Your task to perform on an android device: Clear the cart on target.com. Add usb-a to usb-b to the cart on target.com, then select checkout. Image 0: 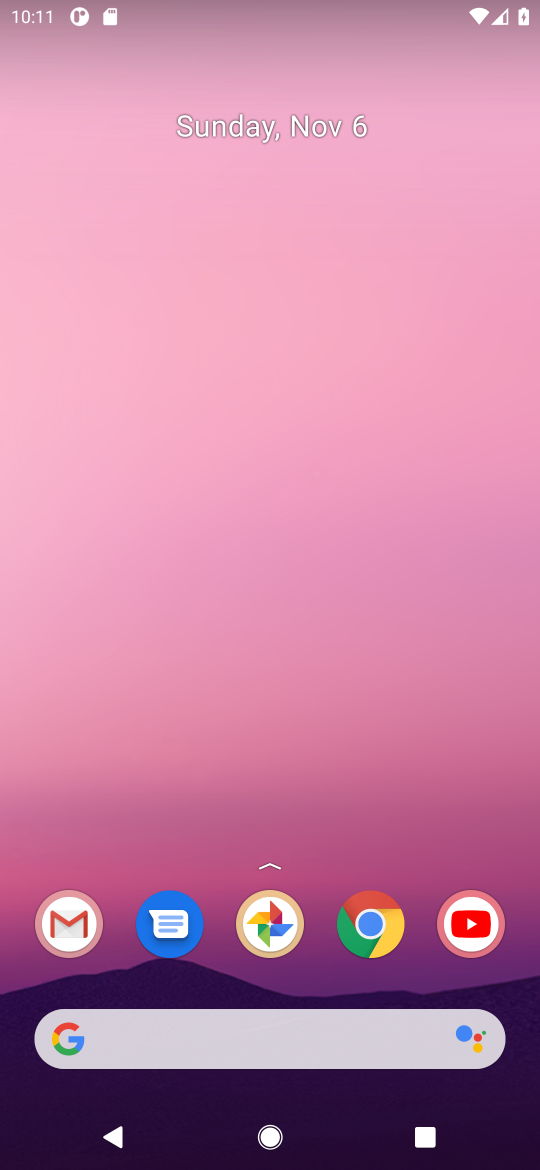
Step 0: drag from (211, 980) to (224, 121)
Your task to perform on an android device: Clear the cart on target.com. Add usb-a to usb-b to the cart on target.com, then select checkout. Image 1: 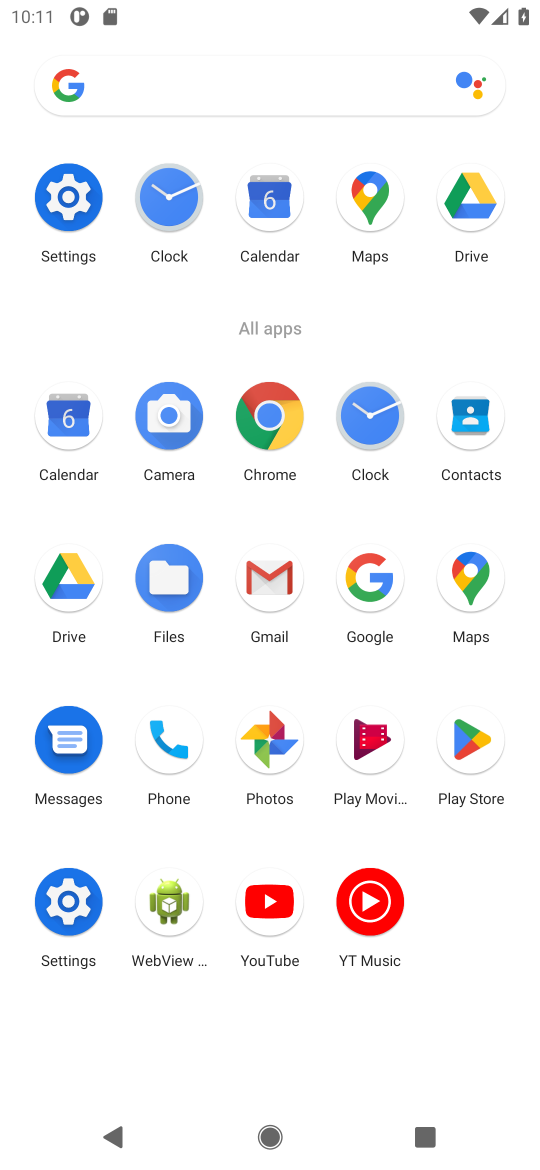
Step 1: click (275, 412)
Your task to perform on an android device: Clear the cart on target.com. Add usb-a to usb-b to the cart on target.com, then select checkout. Image 2: 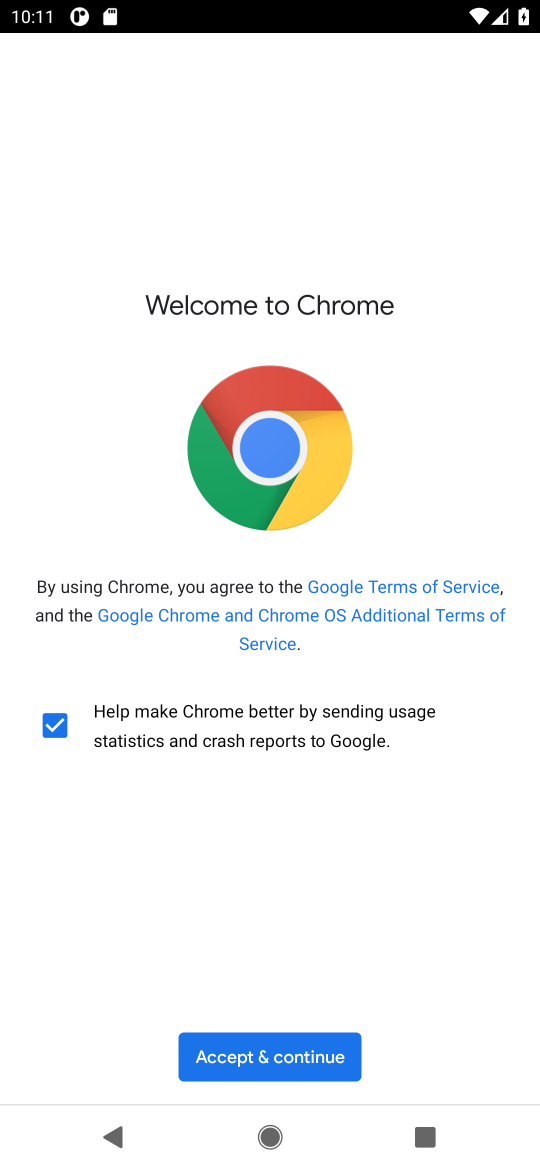
Step 2: click (325, 1073)
Your task to perform on an android device: Clear the cart on target.com. Add usb-a to usb-b to the cart on target.com, then select checkout. Image 3: 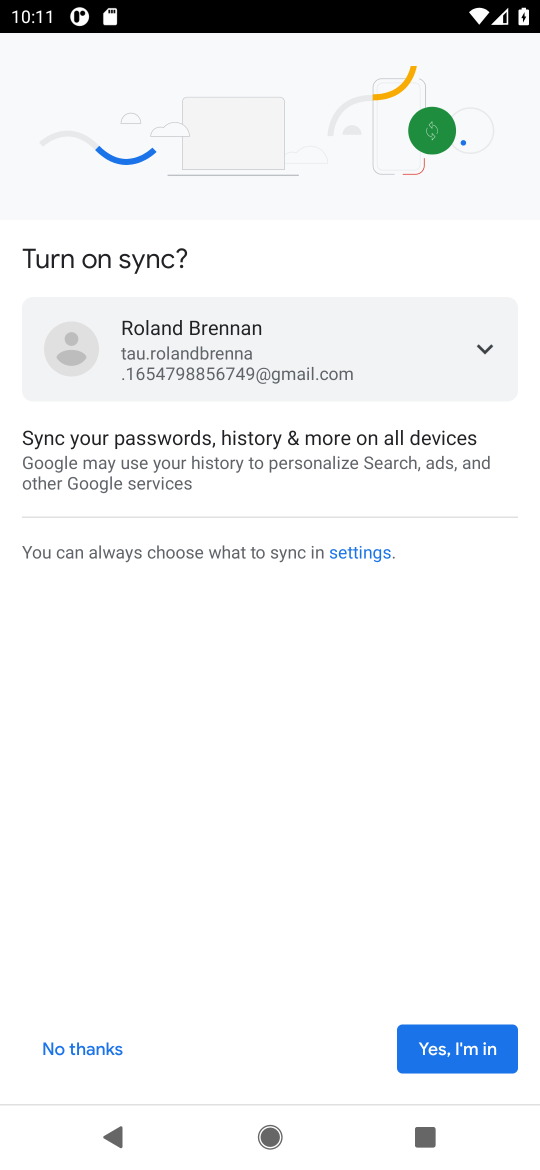
Step 3: click (495, 1059)
Your task to perform on an android device: Clear the cart on target.com. Add usb-a to usb-b to the cart on target.com, then select checkout. Image 4: 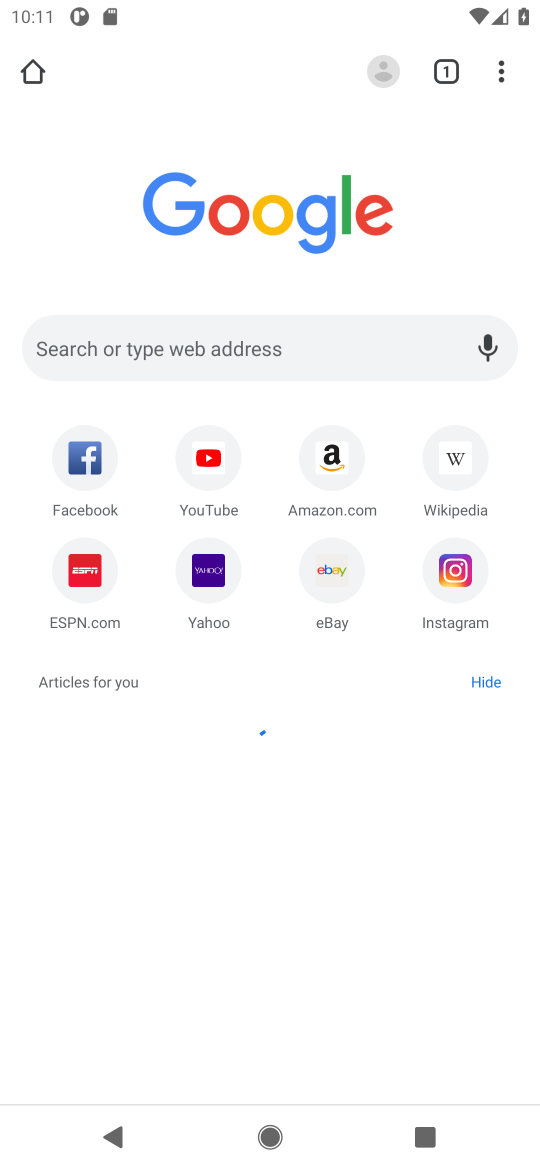
Step 4: click (246, 341)
Your task to perform on an android device: Clear the cart on target.com. Add usb-a to usb-b to the cart on target.com, then select checkout. Image 5: 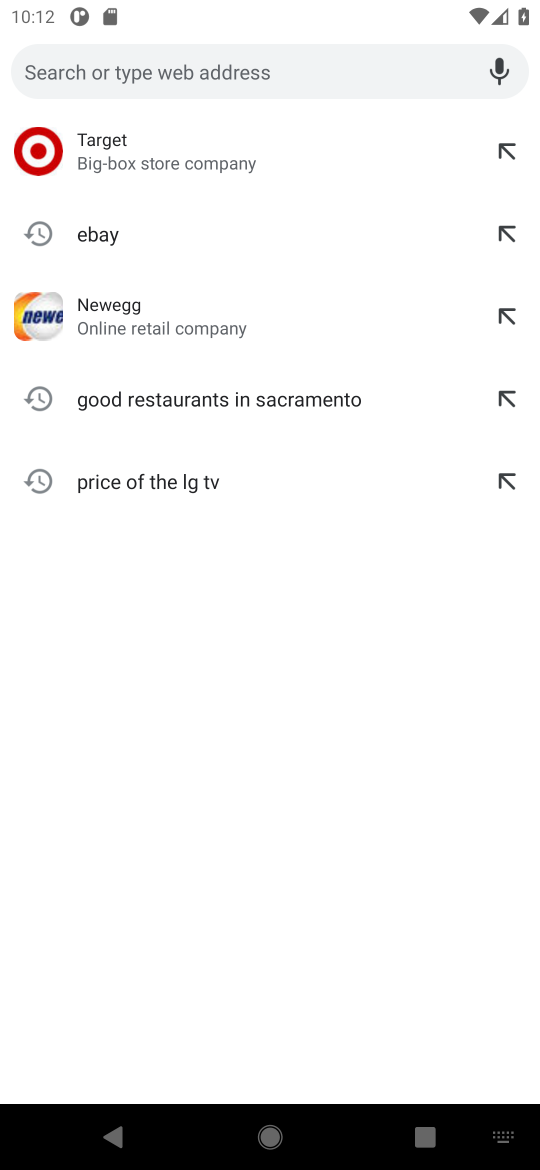
Step 5: type "target.com"
Your task to perform on an android device: Clear the cart on target.com. Add usb-a to usb-b to the cart on target.com, then select checkout. Image 6: 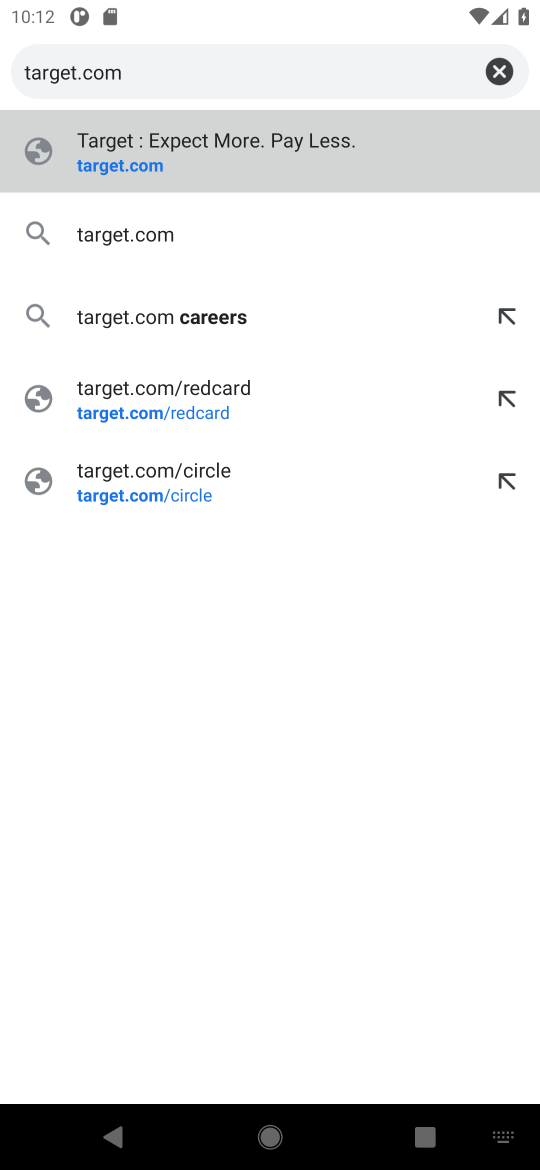
Step 6: press enter
Your task to perform on an android device: Clear the cart on target.com. Add usb-a to usb-b to the cart on target.com, then select checkout. Image 7: 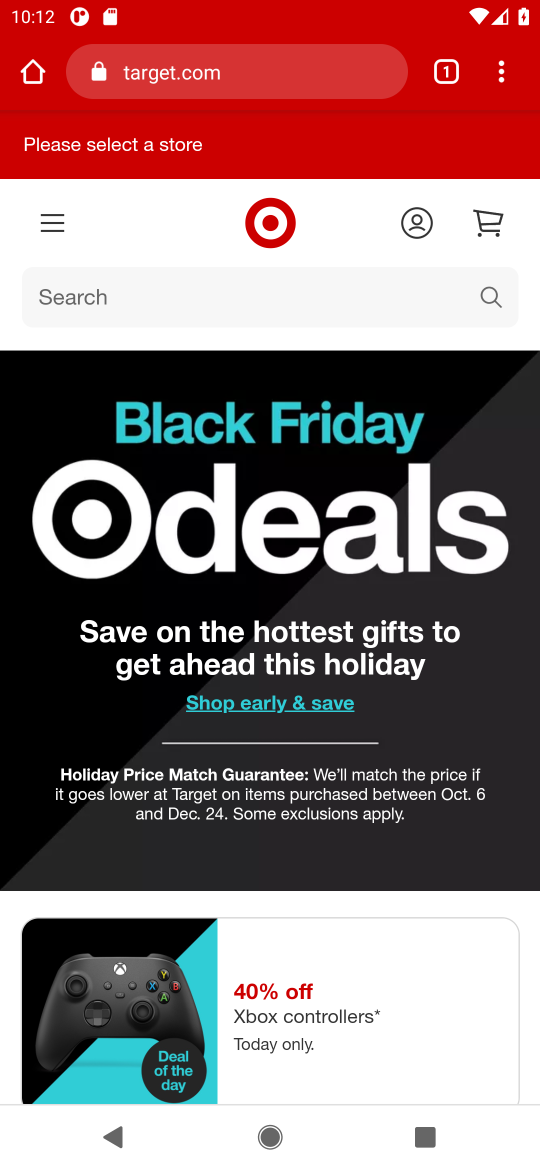
Step 7: drag from (306, 896) to (171, 141)
Your task to perform on an android device: Clear the cart on target.com. Add usb-a to usb-b to the cart on target.com, then select checkout. Image 8: 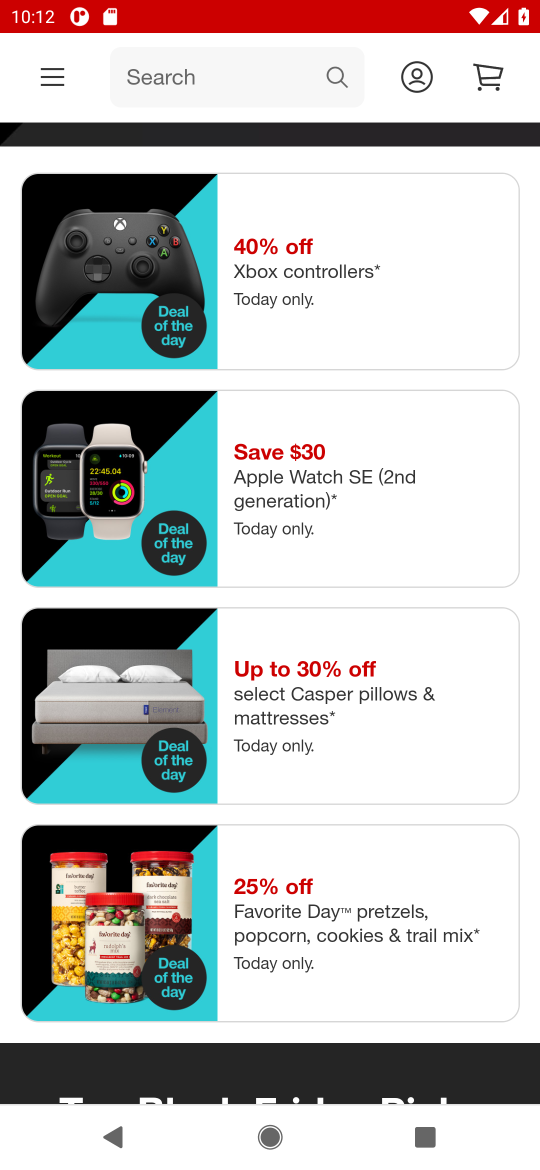
Step 8: drag from (266, 183) to (338, 902)
Your task to perform on an android device: Clear the cart on target.com. Add usb-a to usb-b to the cart on target.com, then select checkout. Image 9: 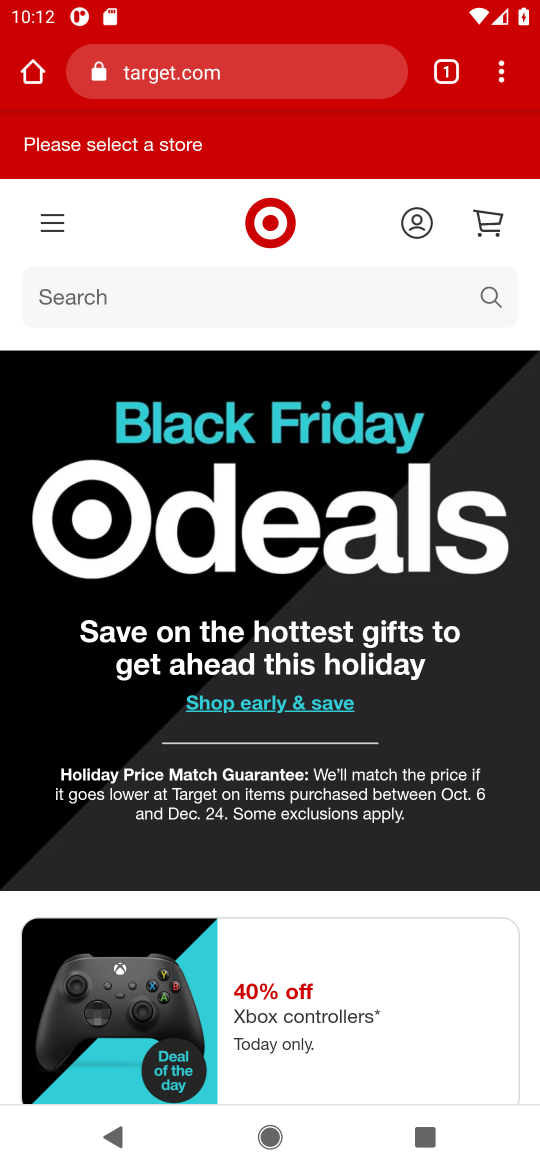
Step 9: click (493, 144)
Your task to perform on an android device: Clear the cart on target.com. Add usb-a to usb-b to the cart on target.com, then select checkout. Image 10: 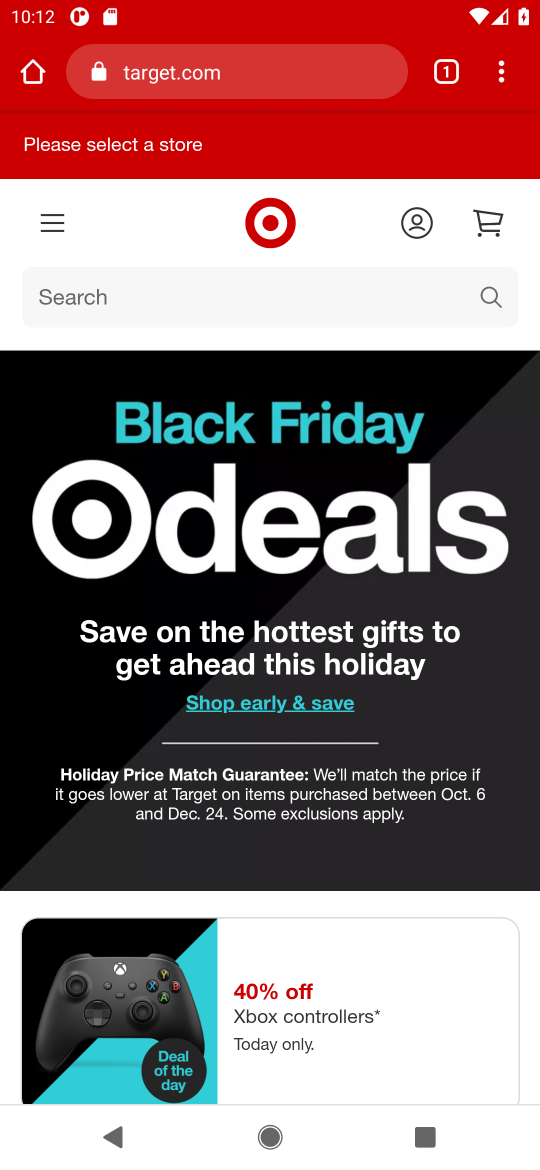
Step 10: click (479, 223)
Your task to perform on an android device: Clear the cart on target.com. Add usb-a to usb-b to the cart on target.com, then select checkout. Image 11: 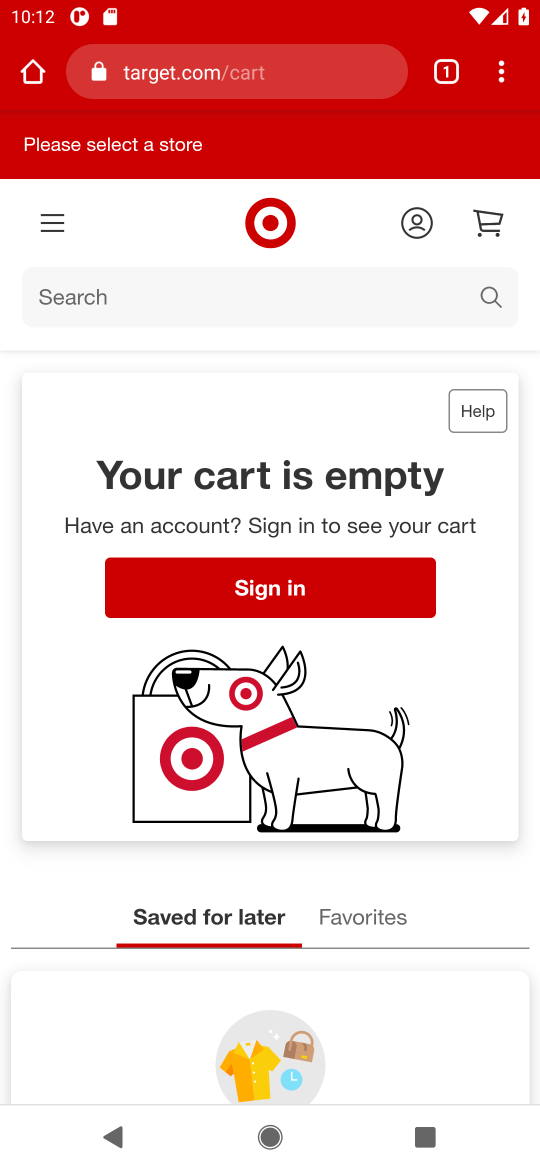
Step 11: drag from (363, 905) to (327, 248)
Your task to perform on an android device: Clear the cart on target.com. Add usb-a to usb-b to the cart on target.com, then select checkout. Image 12: 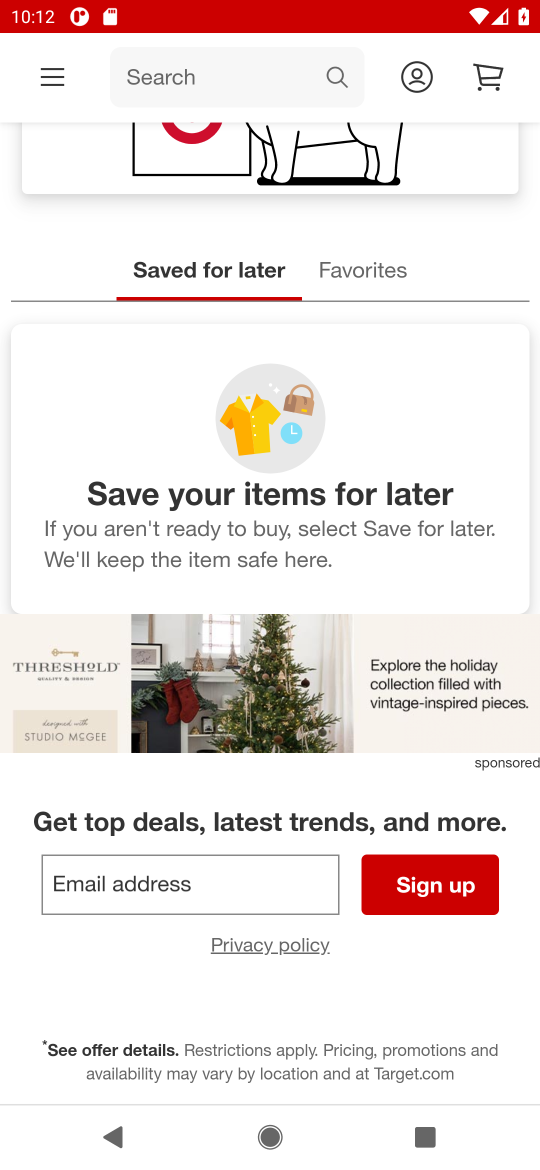
Step 12: drag from (384, 316) to (454, 958)
Your task to perform on an android device: Clear the cart on target.com. Add usb-a to usb-b to the cart on target.com, then select checkout. Image 13: 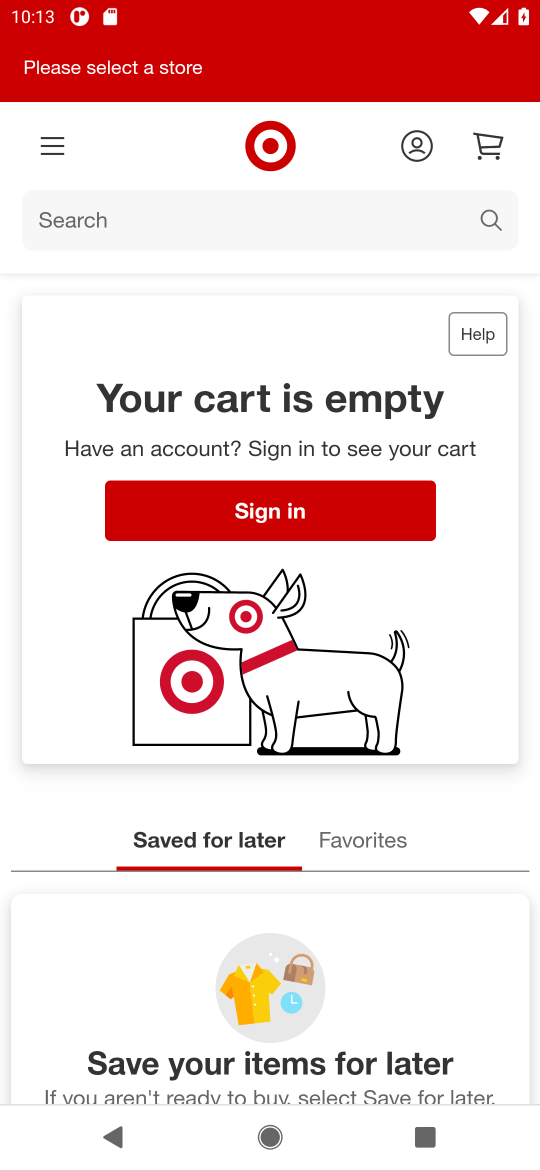
Step 13: click (302, 224)
Your task to perform on an android device: Clear the cart on target.com. Add usb-a to usb-b to the cart on target.com, then select checkout. Image 14: 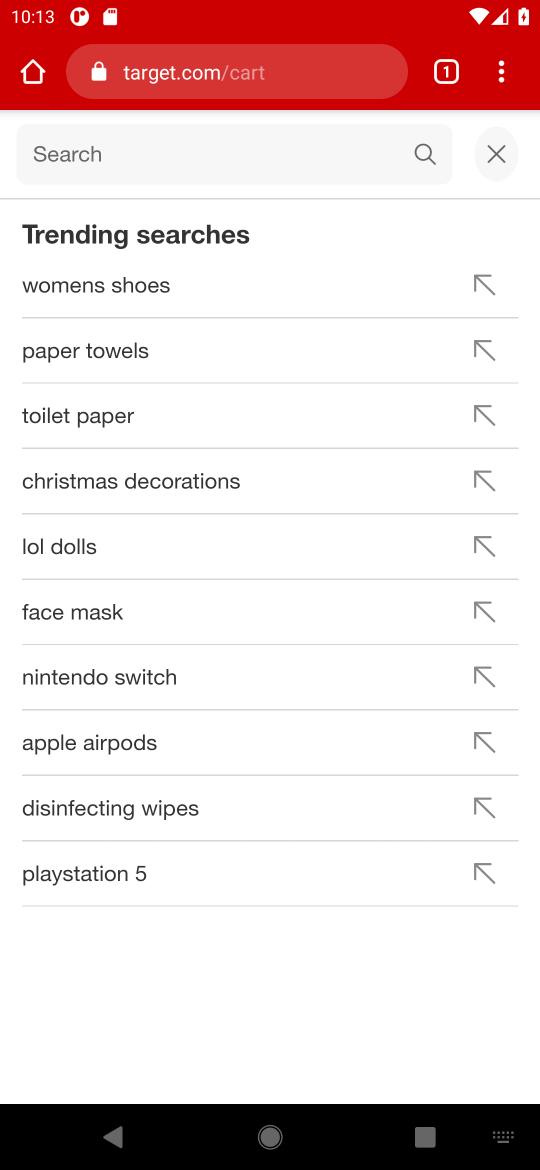
Step 14: type "usb-a to usb-b"
Your task to perform on an android device: Clear the cart on target.com. Add usb-a to usb-b to the cart on target.com, then select checkout. Image 15: 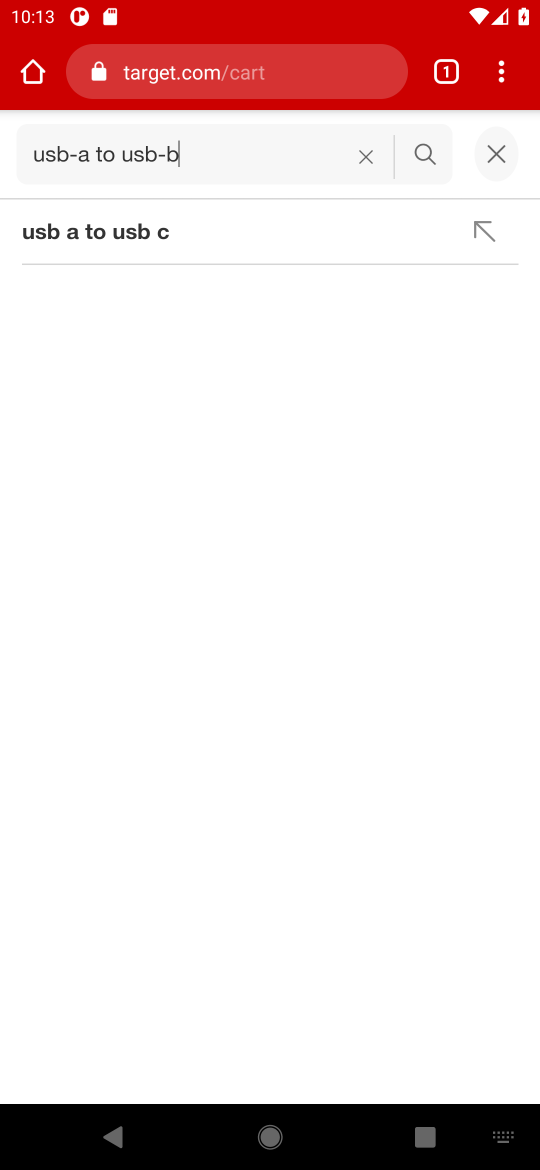
Step 15: press enter
Your task to perform on an android device: Clear the cart on target.com. Add usb-a to usb-b to the cart on target.com, then select checkout. Image 16: 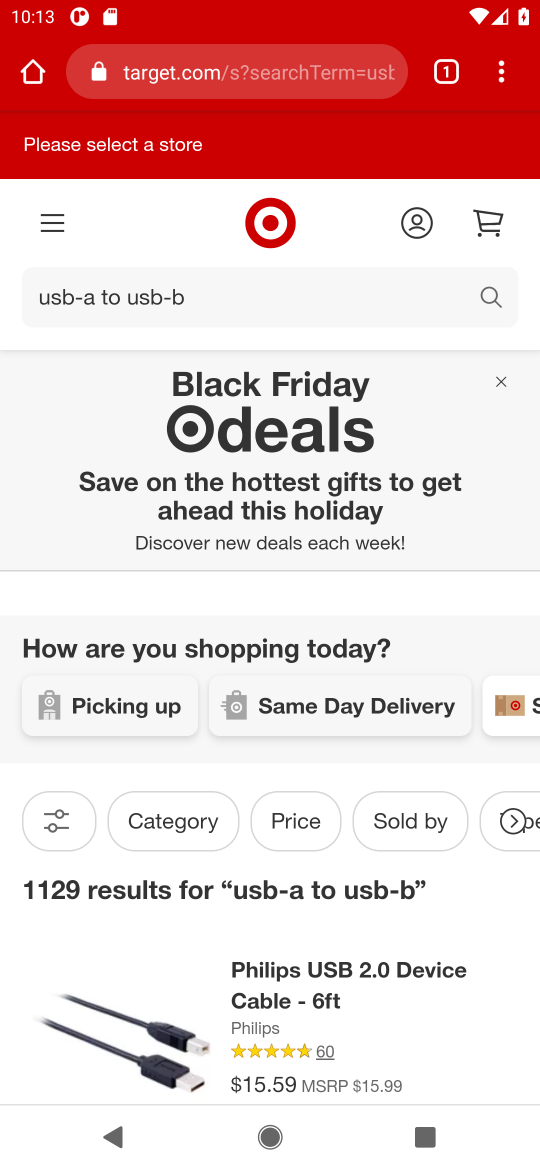
Step 16: drag from (382, 978) to (354, 202)
Your task to perform on an android device: Clear the cart on target.com. Add usb-a to usb-b to the cart on target.com, then select checkout. Image 17: 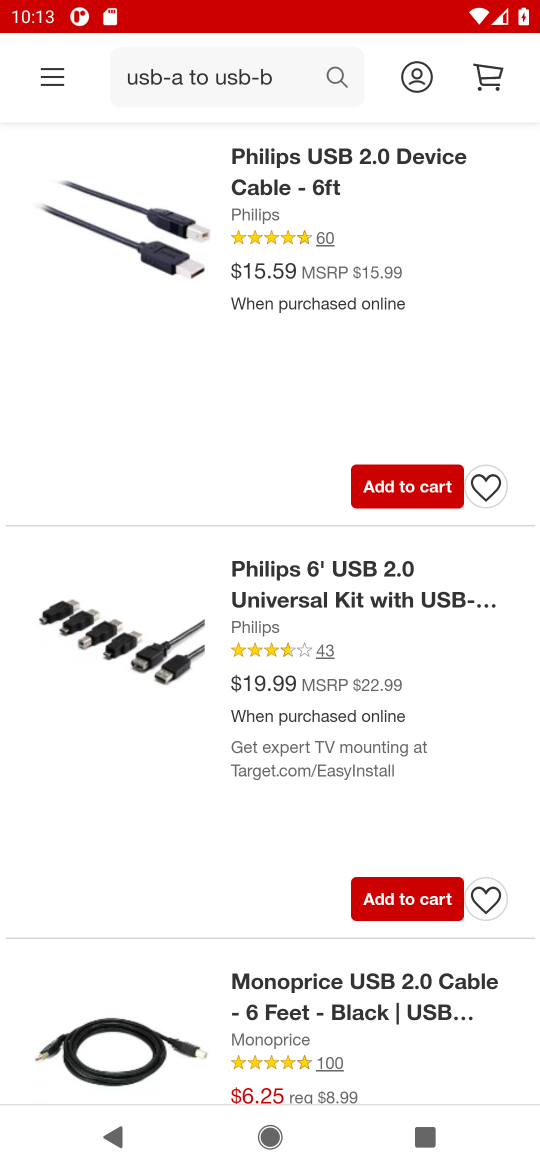
Step 17: drag from (309, 740) to (275, 222)
Your task to perform on an android device: Clear the cart on target.com. Add usb-a to usb-b to the cart on target.com, then select checkout. Image 18: 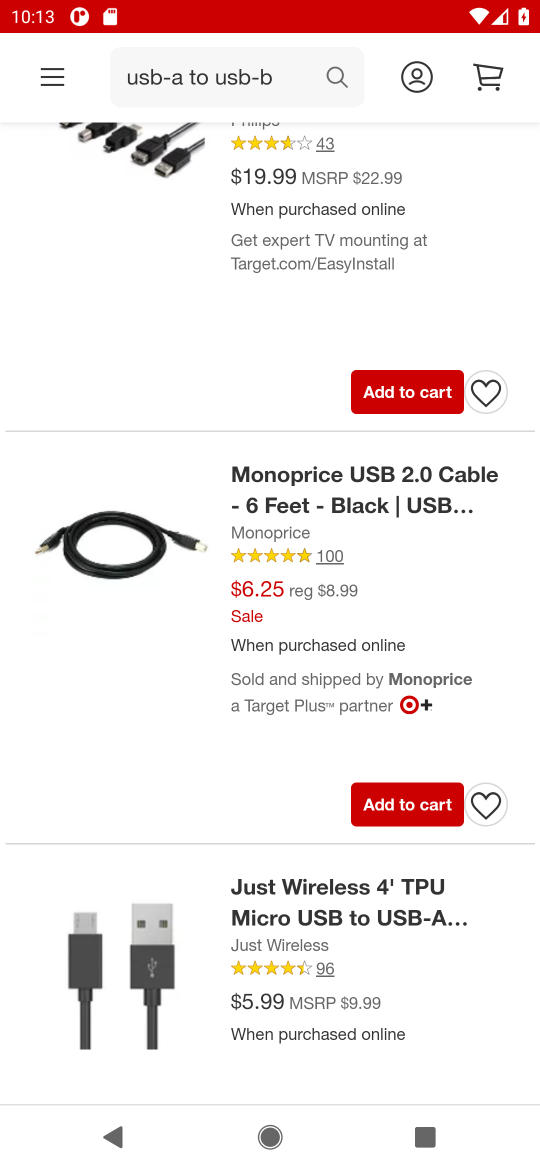
Step 18: drag from (272, 657) to (266, 322)
Your task to perform on an android device: Clear the cart on target.com. Add usb-a to usb-b to the cart on target.com, then select checkout. Image 19: 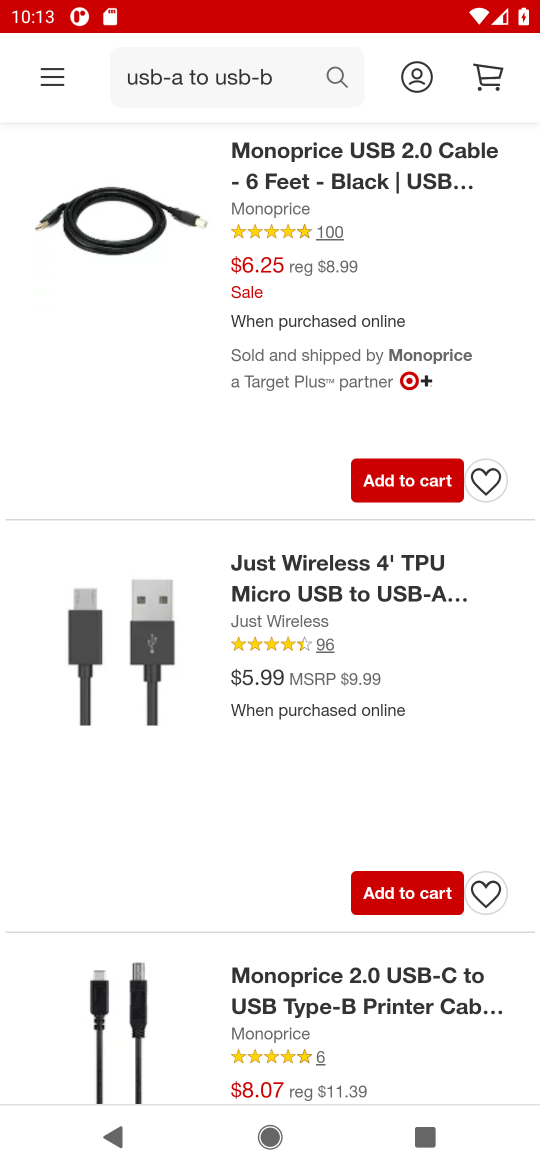
Step 19: drag from (250, 813) to (283, 1166)
Your task to perform on an android device: Clear the cart on target.com. Add usb-a to usb-b to the cart on target.com, then select checkout. Image 20: 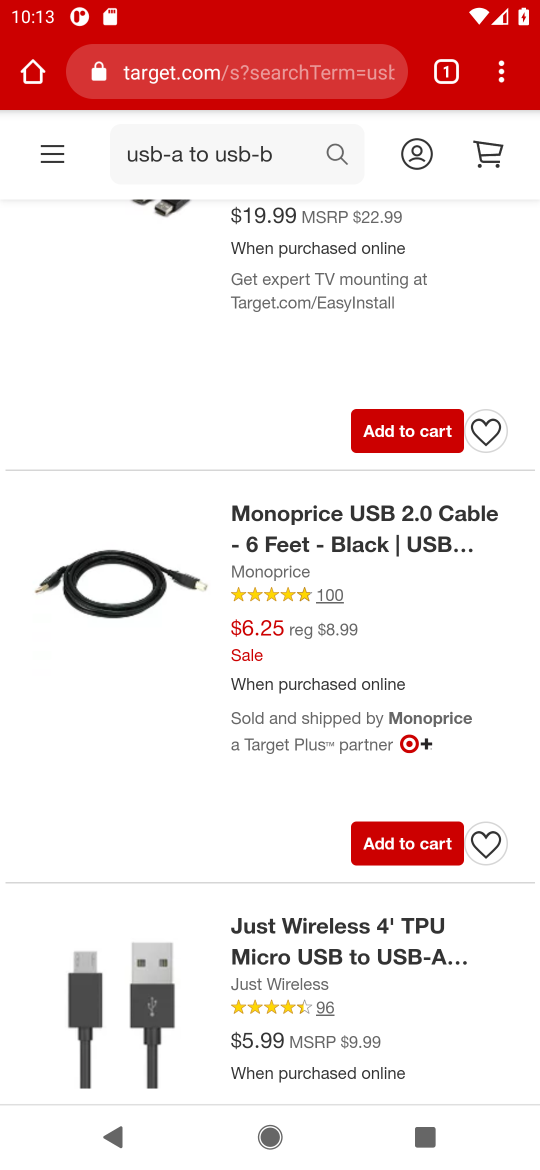
Step 20: drag from (203, 381) to (252, 1161)
Your task to perform on an android device: Clear the cart on target.com. Add usb-a to usb-b to the cart on target.com, then select checkout. Image 21: 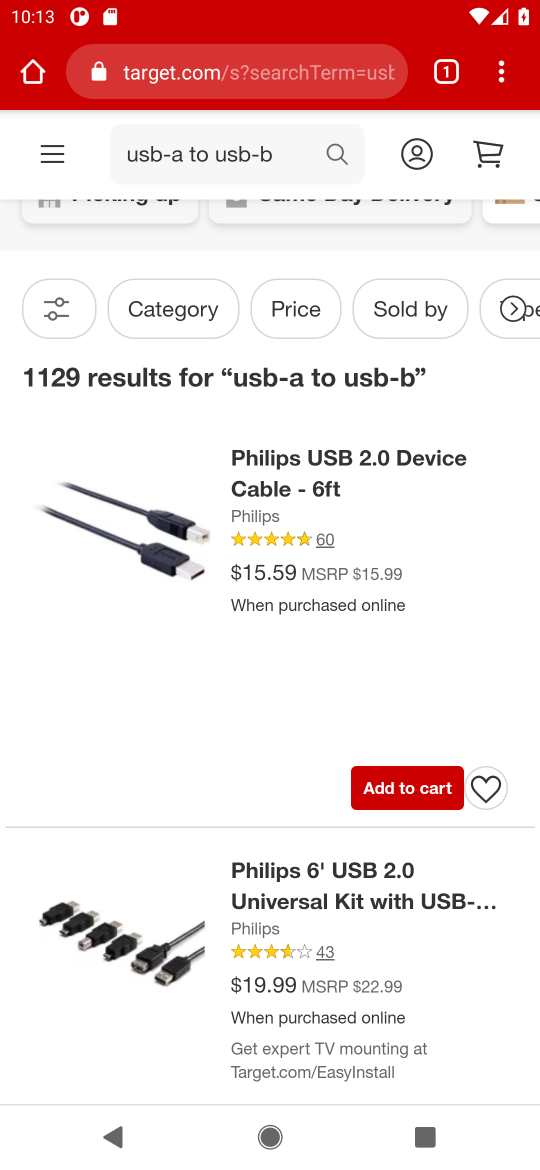
Step 21: click (253, 442)
Your task to perform on an android device: Clear the cart on target.com. Add usb-a to usb-b to the cart on target.com, then select checkout. Image 22: 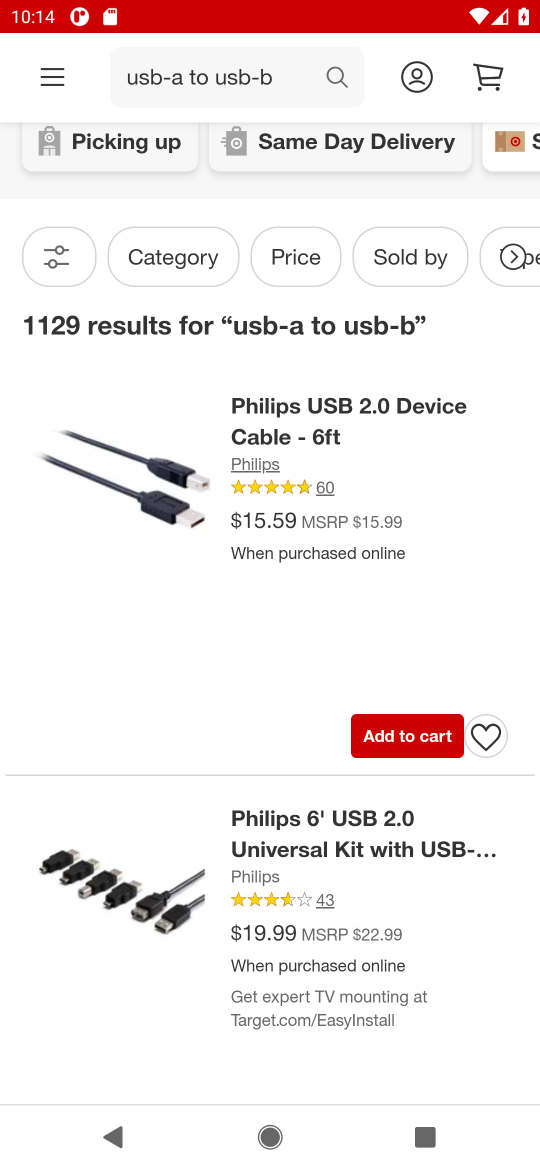
Step 22: drag from (289, 929) to (201, 300)
Your task to perform on an android device: Clear the cart on target.com. Add usb-a to usb-b to the cart on target.com, then select checkout. Image 23: 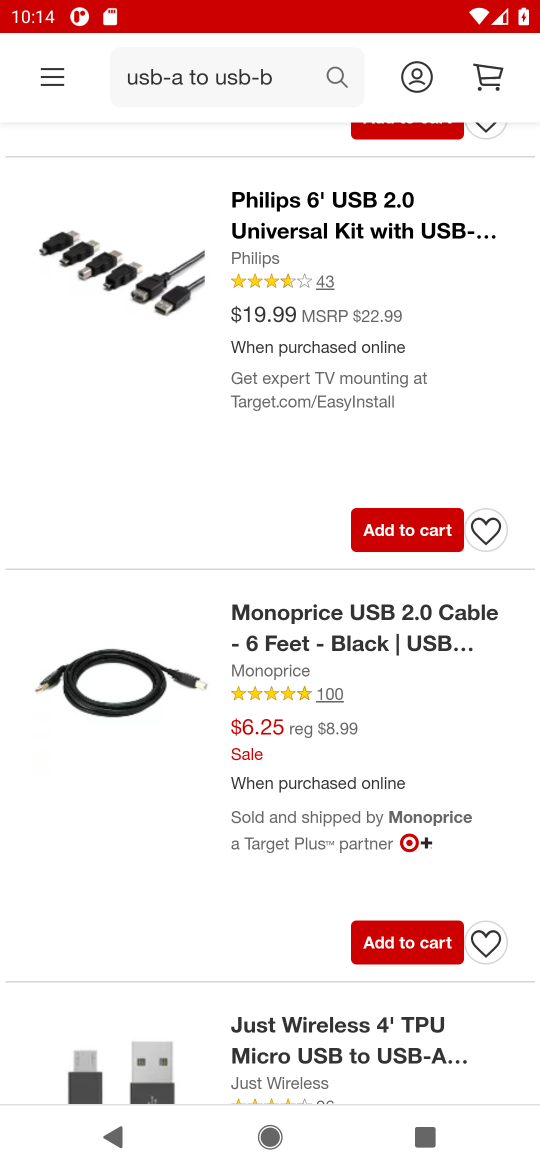
Step 23: drag from (284, 877) to (335, 477)
Your task to perform on an android device: Clear the cart on target.com. Add usb-a to usb-b to the cart on target.com, then select checkout. Image 24: 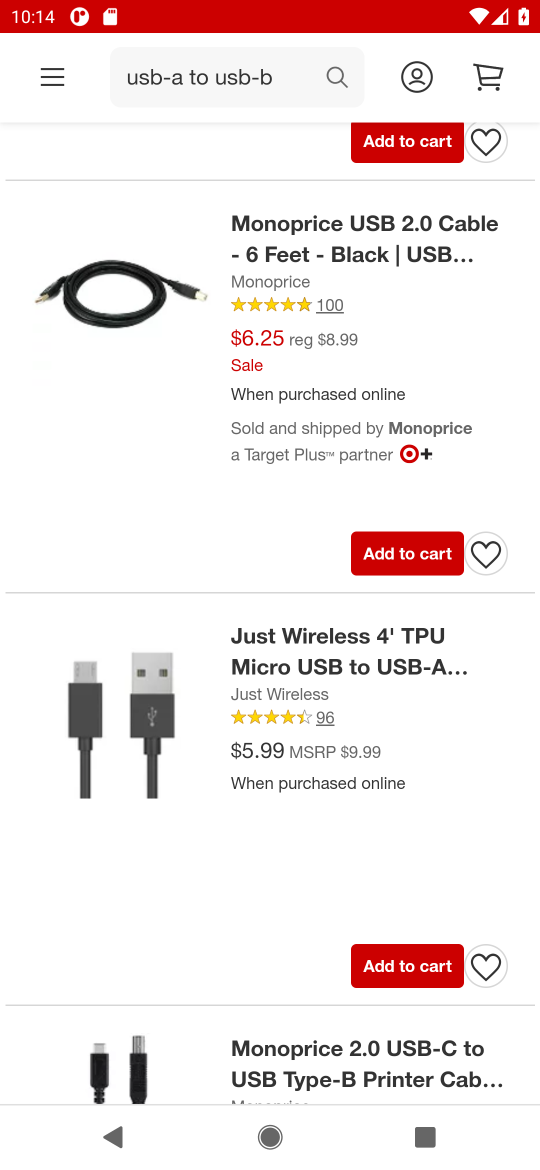
Step 24: drag from (255, 708) to (251, 339)
Your task to perform on an android device: Clear the cart on target.com. Add usb-a to usb-b to the cart on target.com, then select checkout. Image 25: 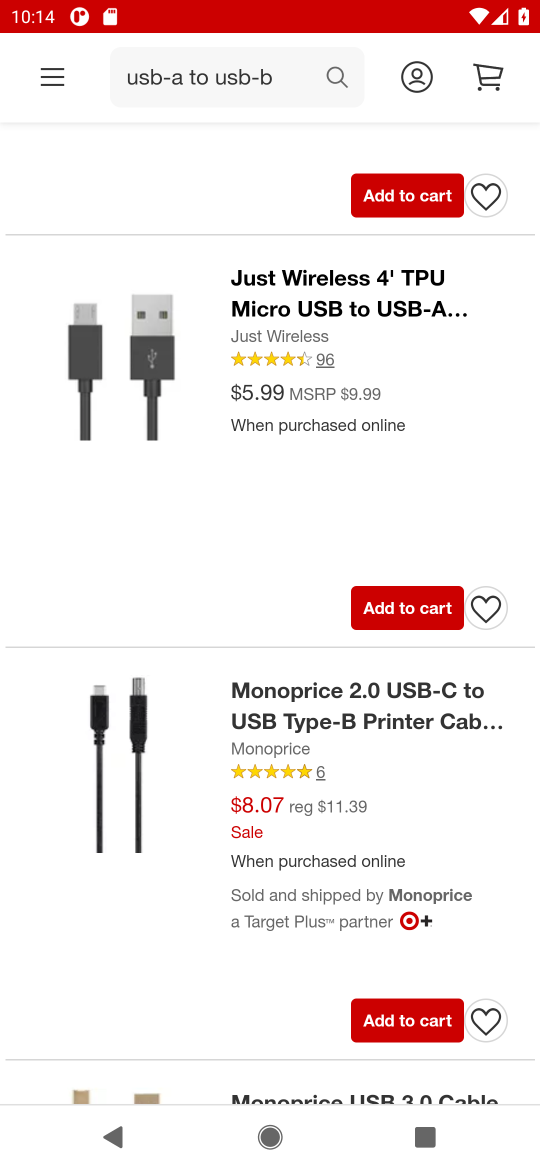
Step 25: drag from (289, 202) to (316, 1038)
Your task to perform on an android device: Clear the cart on target.com. Add usb-a to usb-b to the cart on target.com, then select checkout. Image 26: 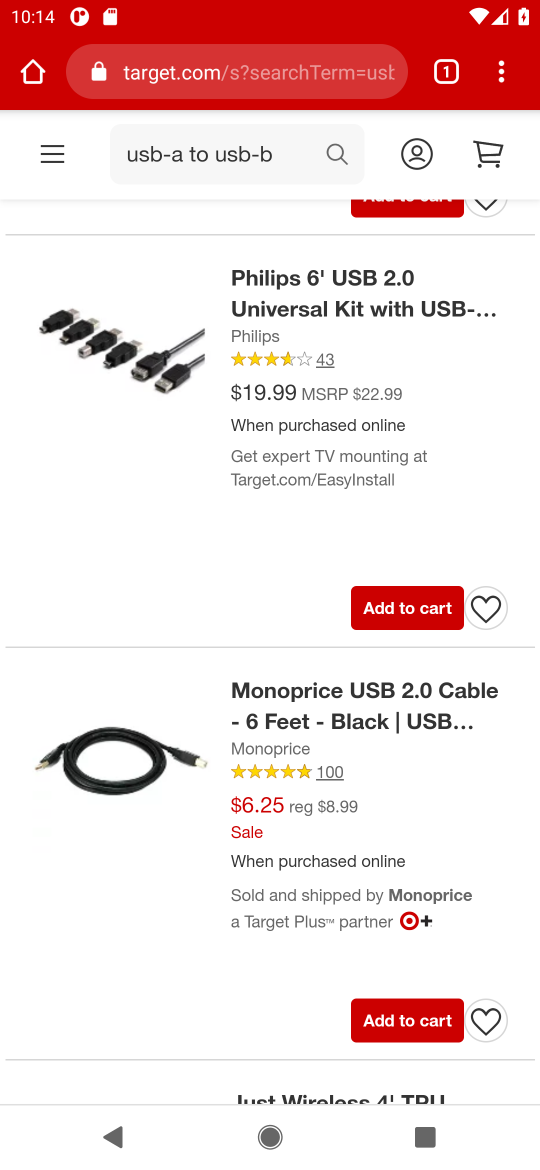
Step 26: drag from (310, 332) to (224, 1097)
Your task to perform on an android device: Clear the cart on target.com. Add usb-a to usb-b to the cart on target.com, then select checkout. Image 27: 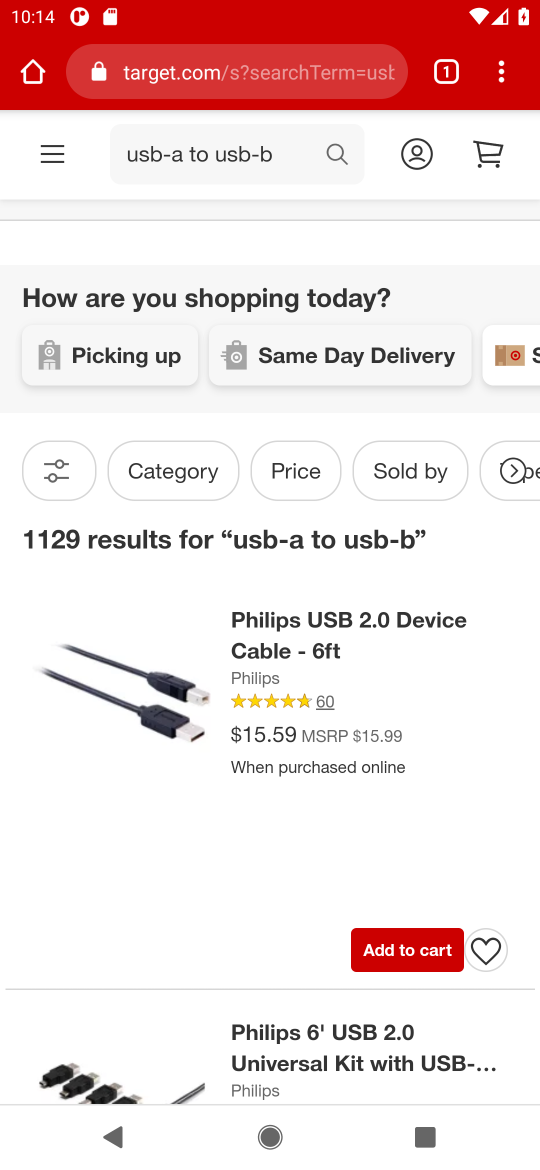
Step 27: click (266, 703)
Your task to perform on an android device: Clear the cart on target.com. Add usb-a to usb-b to the cart on target.com, then select checkout. Image 28: 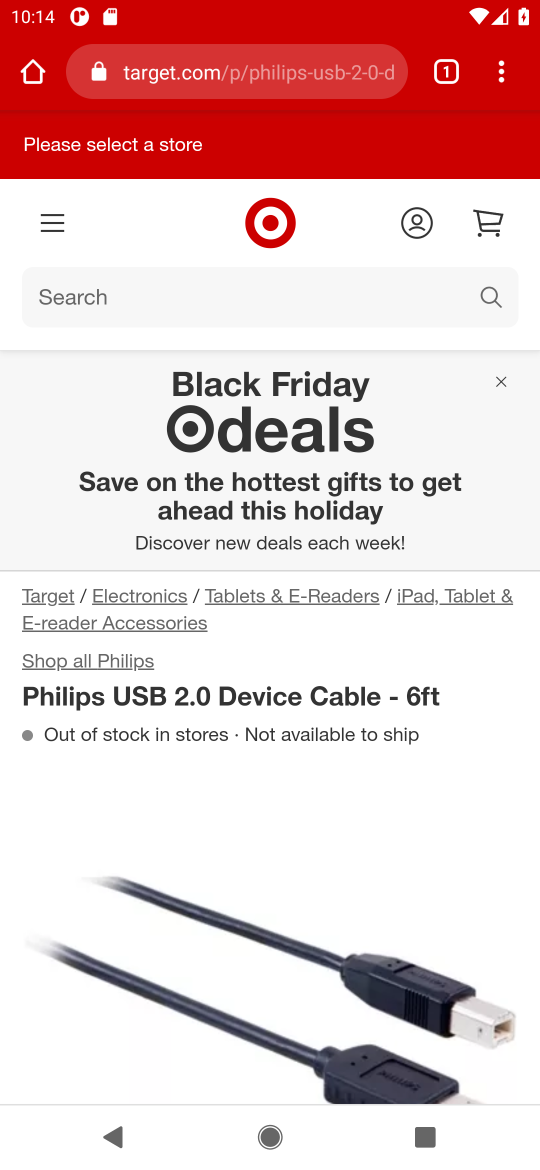
Step 28: task complete